Your task to perform on an android device: Add dell xps to the cart on walmart Image 0: 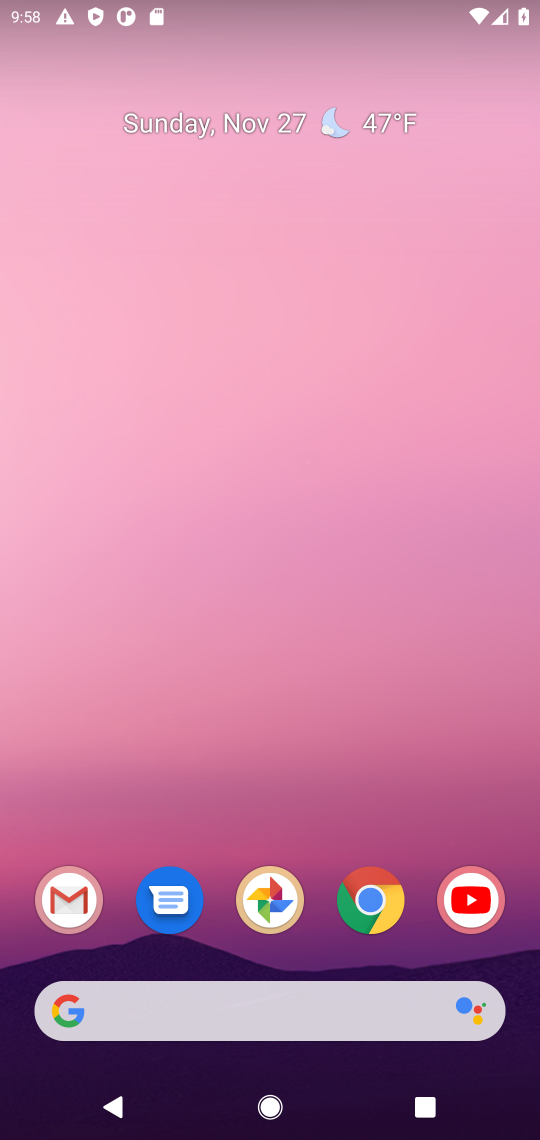
Step 0: click (366, 900)
Your task to perform on an android device: Add dell xps to the cart on walmart Image 1: 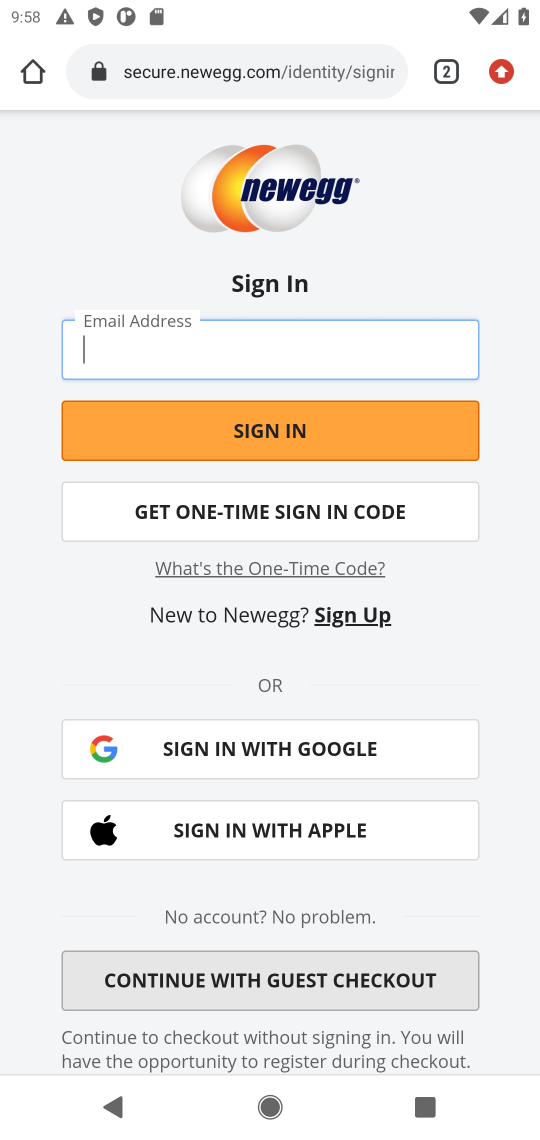
Step 1: click (226, 79)
Your task to perform on an android device: Add dell xps to the cart on walmart Image 2: 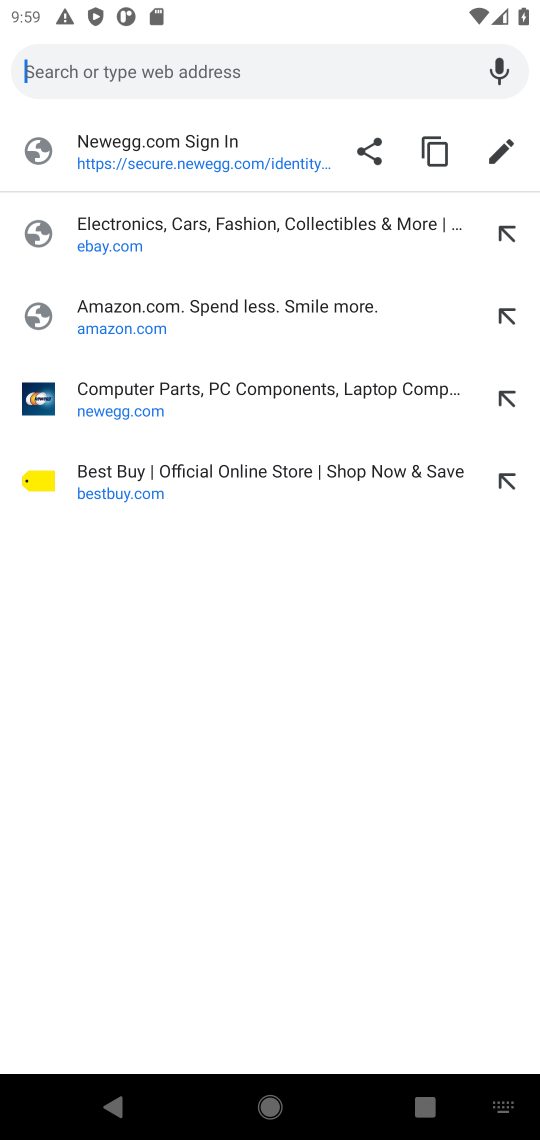
Step 2: type "walmart.com"
Your task to perform on an android device: Add dell xps to the cart on walmart Image 3: 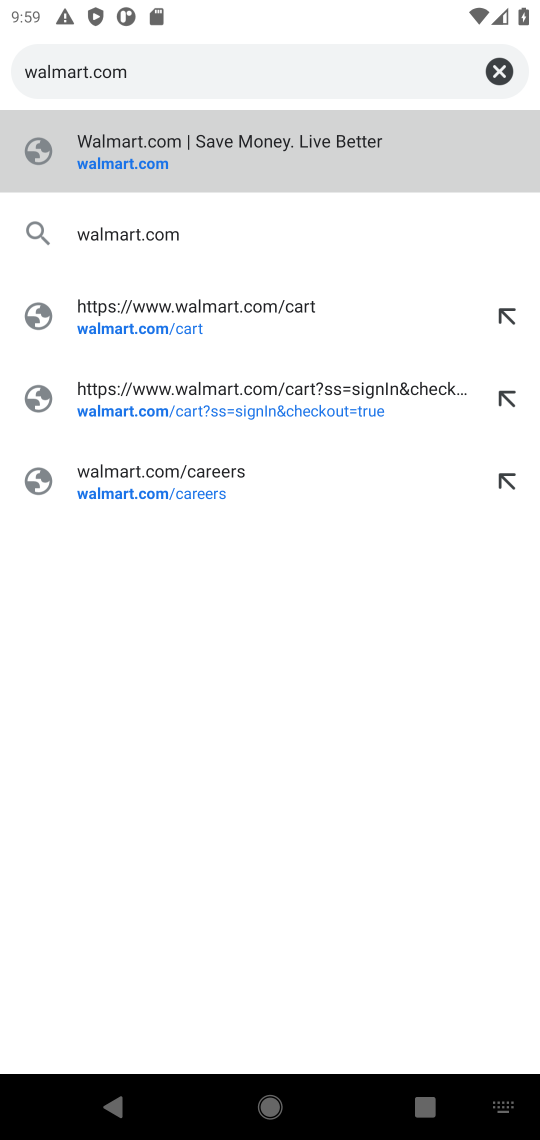
Step 3: click (107, 154)
Your task to perform on an android device: Add dell xps to the cart on walmart Image 4: 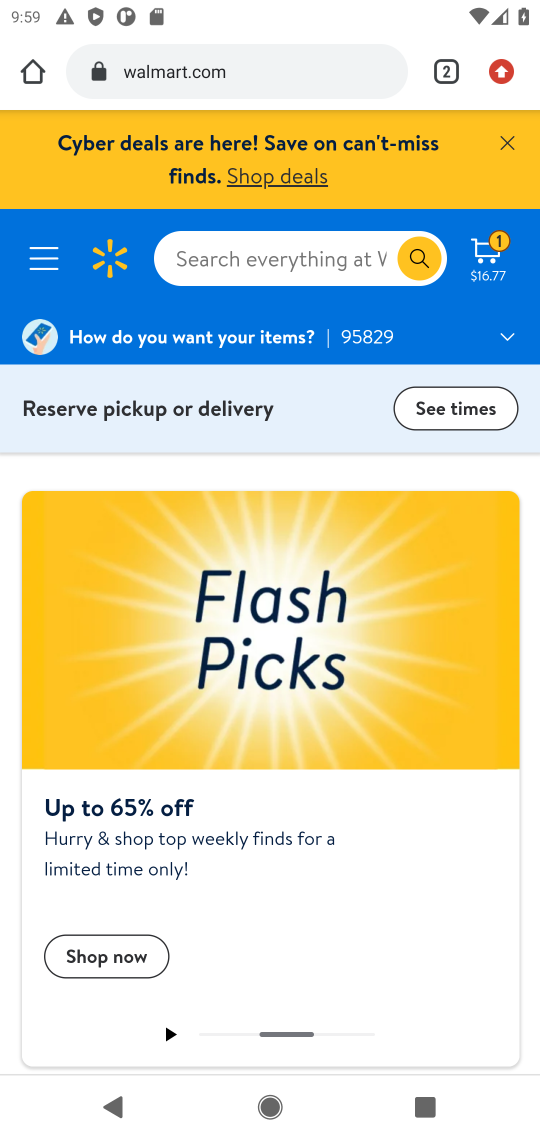
Step 4: click (201, 258)
Your task to perform on an android device: Add dell xps to the cart on walmart Image 5: 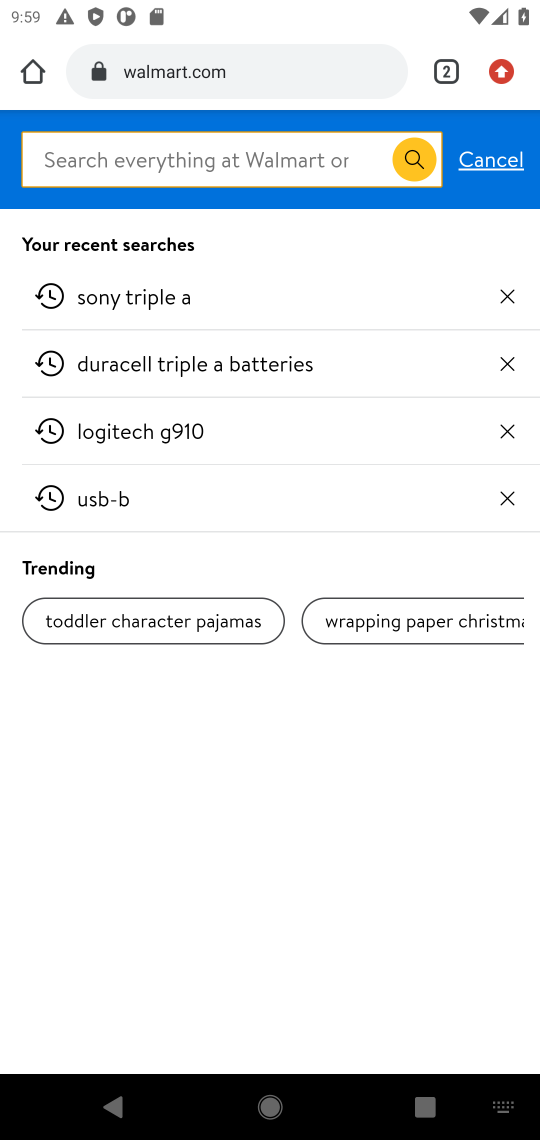
Step 5: type "dell xps"
Your task to perform on an android device: Add dell xps to the cart on walmart Image 6: 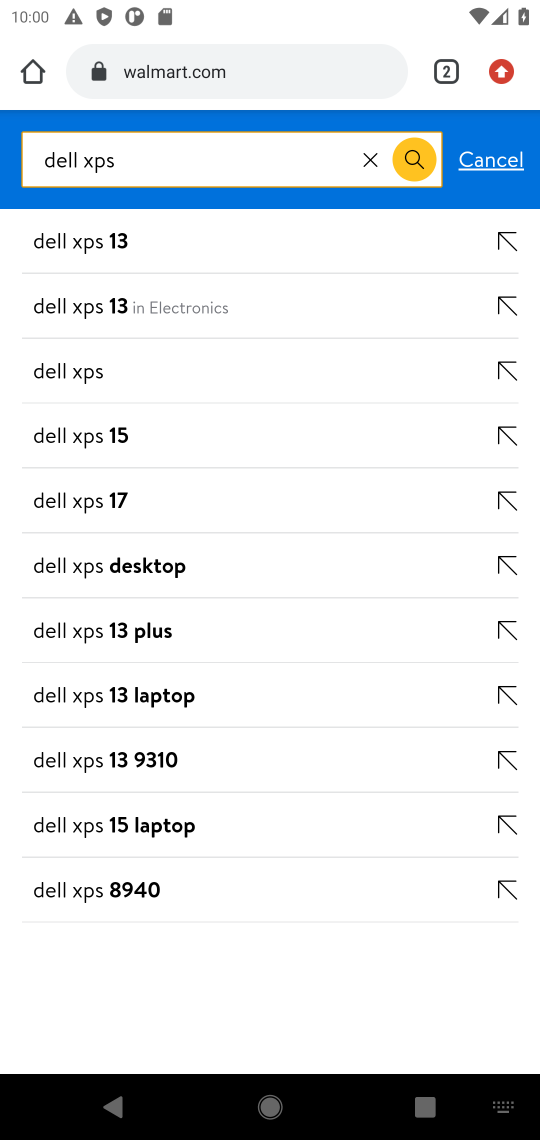
Step 6: click (48, 387)
Your task to perform on an android device: Add dell xps to the cart on walmart Image 7: 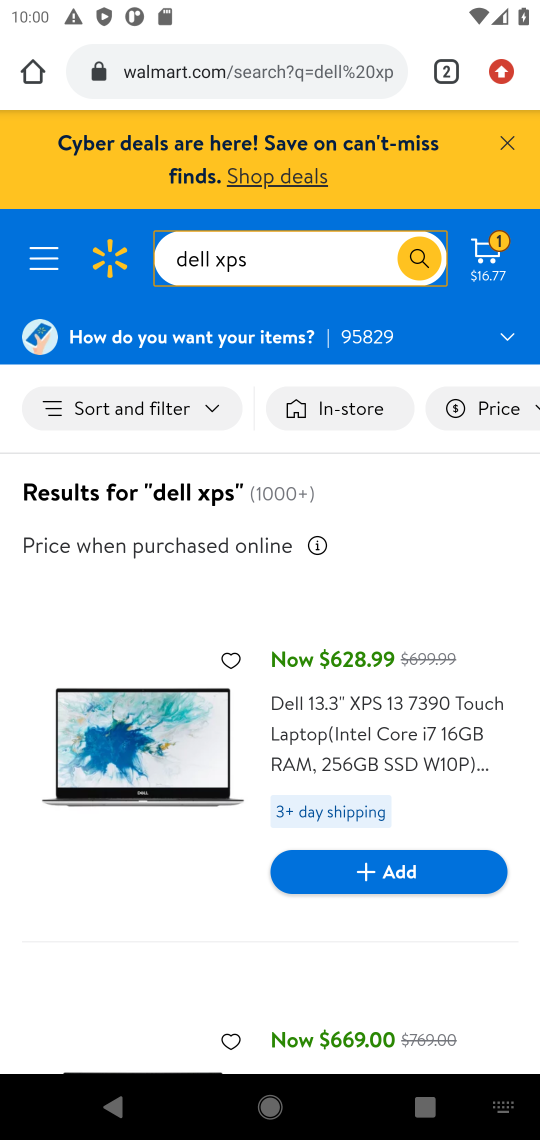
Step 7: click (372, 880)
Your task to perform on an android device: Add dell xps to the cart on walmart Image 8: 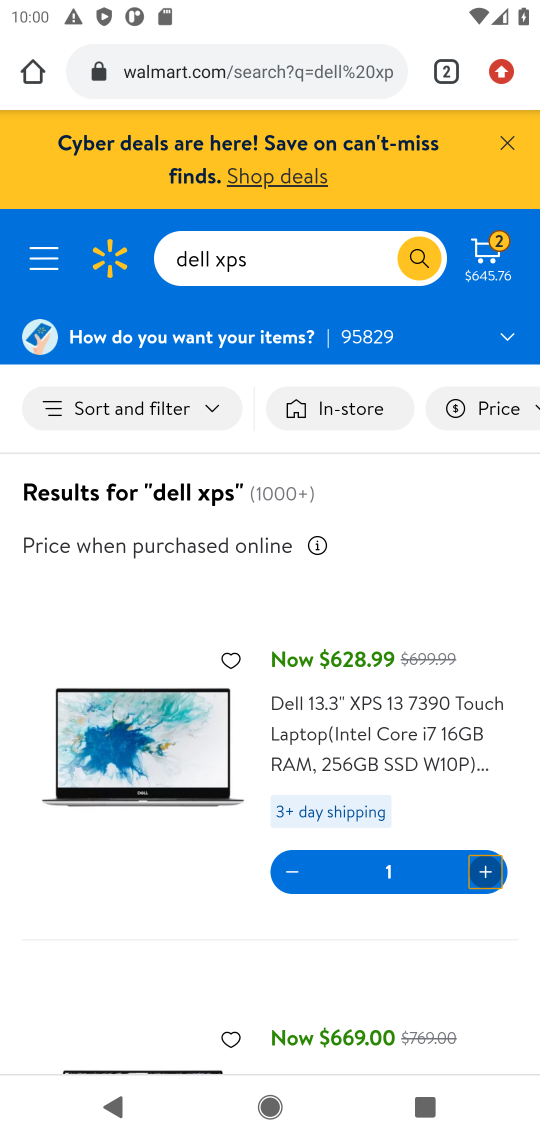
Step 8: task complete